Your task to perform on an android device: Do I have any events today? Image 0: 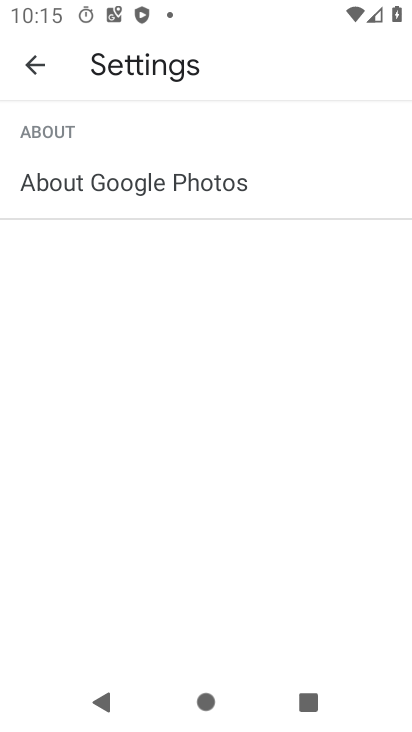
Step 0: press home button
Your task to perform on an android device: Do I have any events today? Image 1: 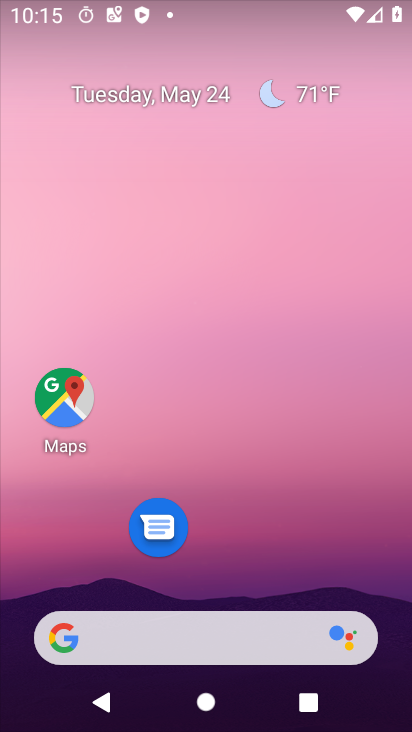
Step 1: drag from (262, 553) to (331, 48)
Your task to perform on an android device: Do I have any events today? Image 2: 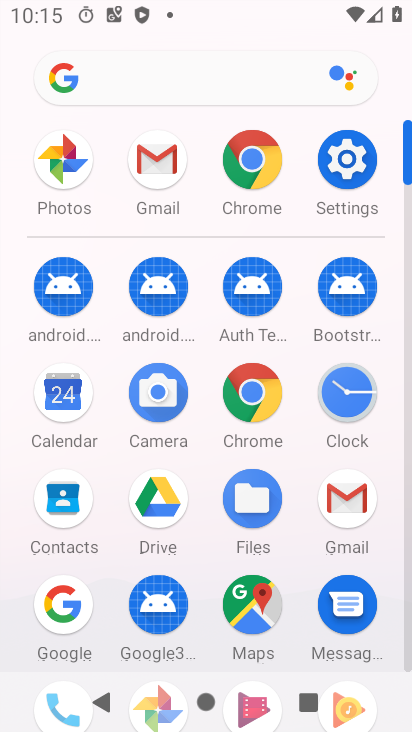
Step 2: click (57, 402)
Your task to perform on an android device: Do I have any events today? Image 3: 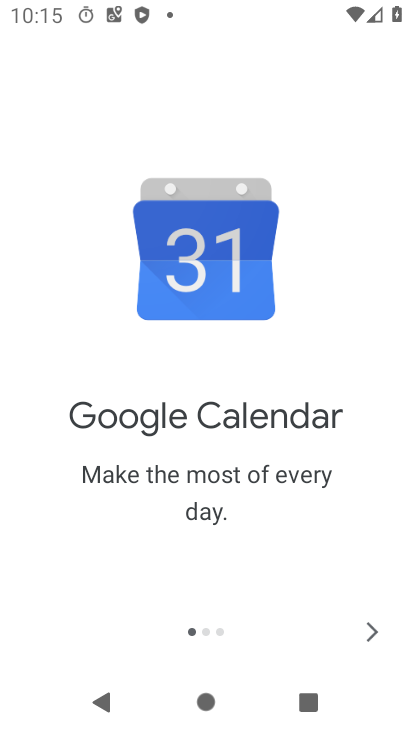
Step 3: click (369, 638)
Your task to perform on an android device: Do I have any events today? Image 4: 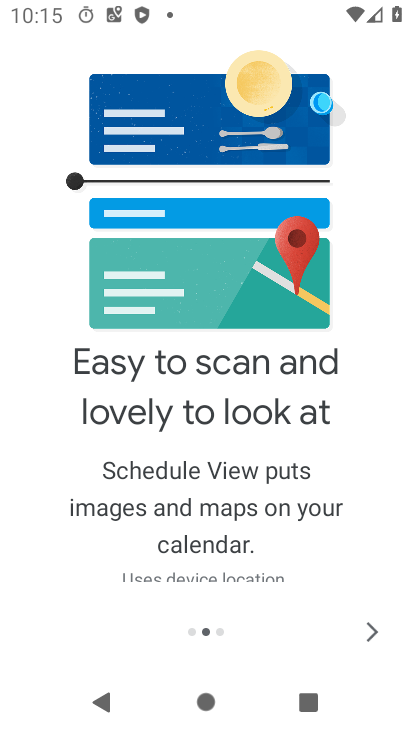
Step 4: click (368, 638)
Your task to perform on an android device: Do I have any events today? Image 5: 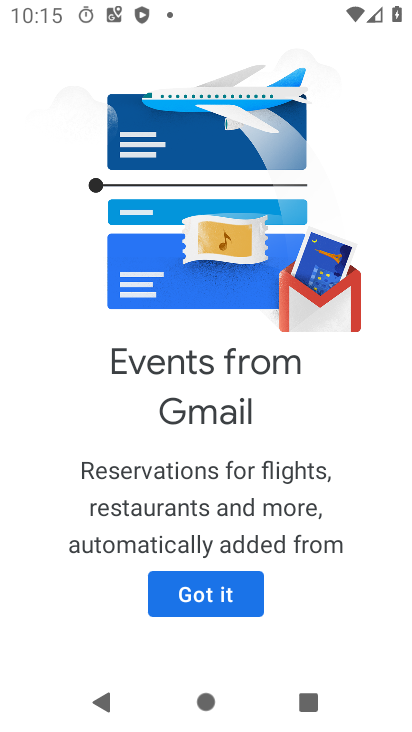
Step 5: click (201, 593)
Your task to perform on an android device: Do I have any events today? Image 6: 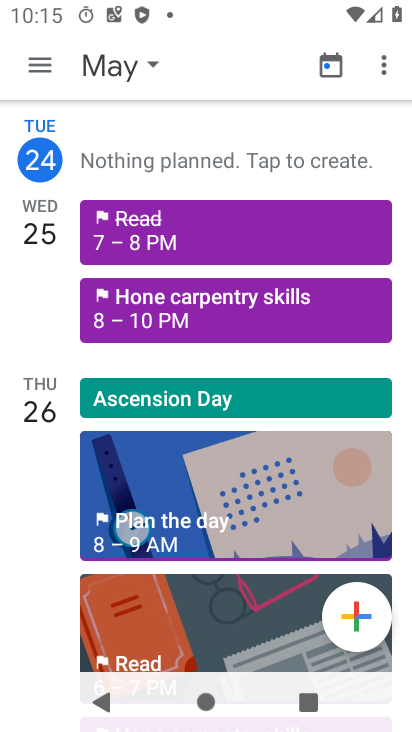
Step 6: click (150, 65)
Your task to perform on an android device: Do I have any events today? Image 7: 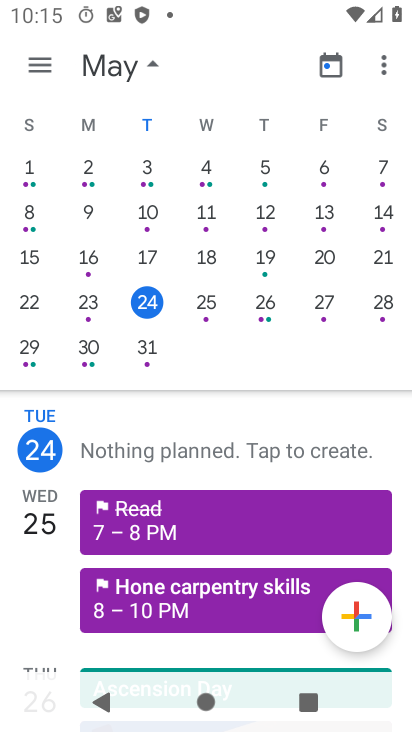
Step 7: click (151, 303)
Your task to perform on an android device: Do I have any events today? Image 8: 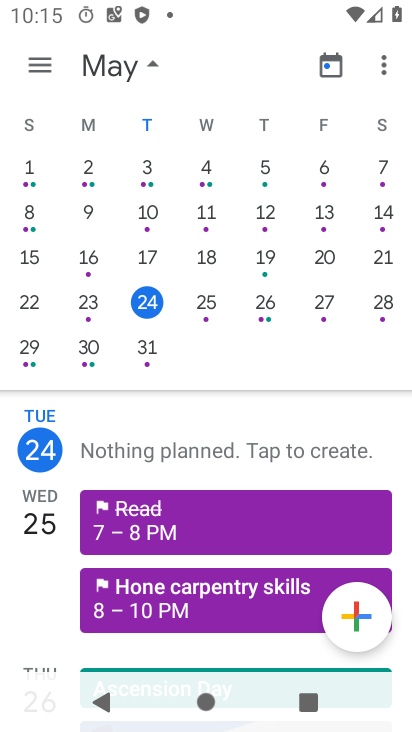
Step 8: task complete